Your task to perform on an android device: Add duracell triple a to the cart on ebay.com Image 0: 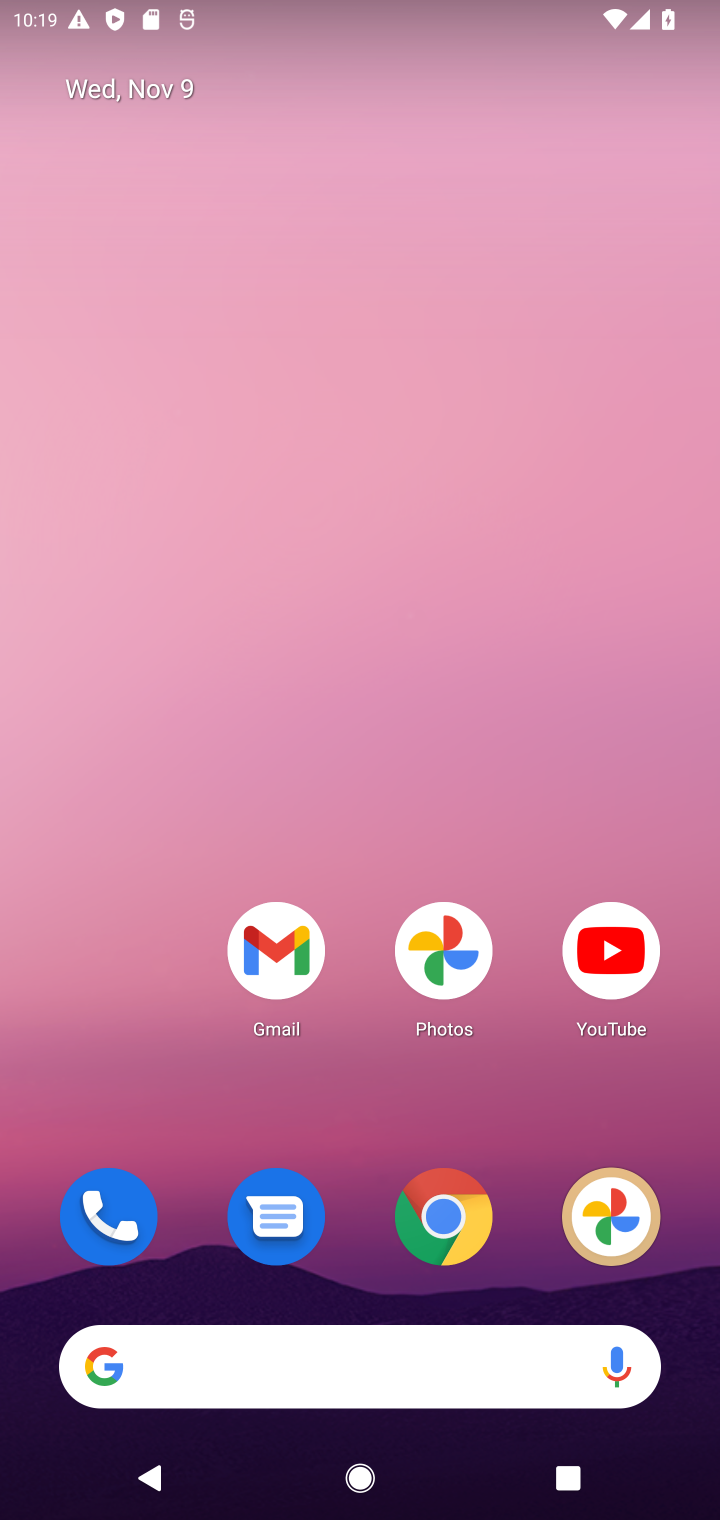
Step 0: drag from (347, 1278) to (184, 84)
Your task to perform on an android device: Add duracell triple a to the cart on ebay.com Image 1: 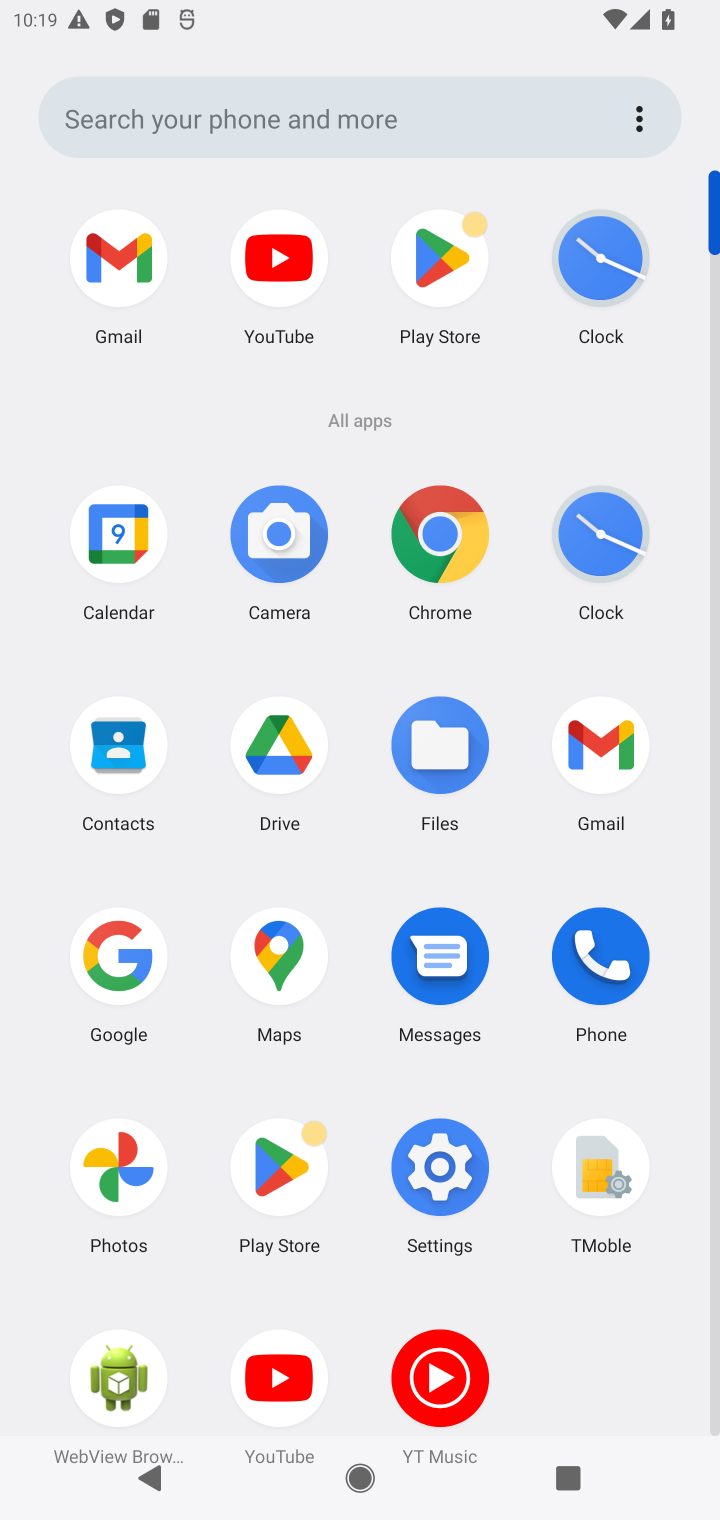
Step 1: click (431, 523)
Your task to perform on an android device: Add duracell triple a to the cart on ebay.com Image 2: 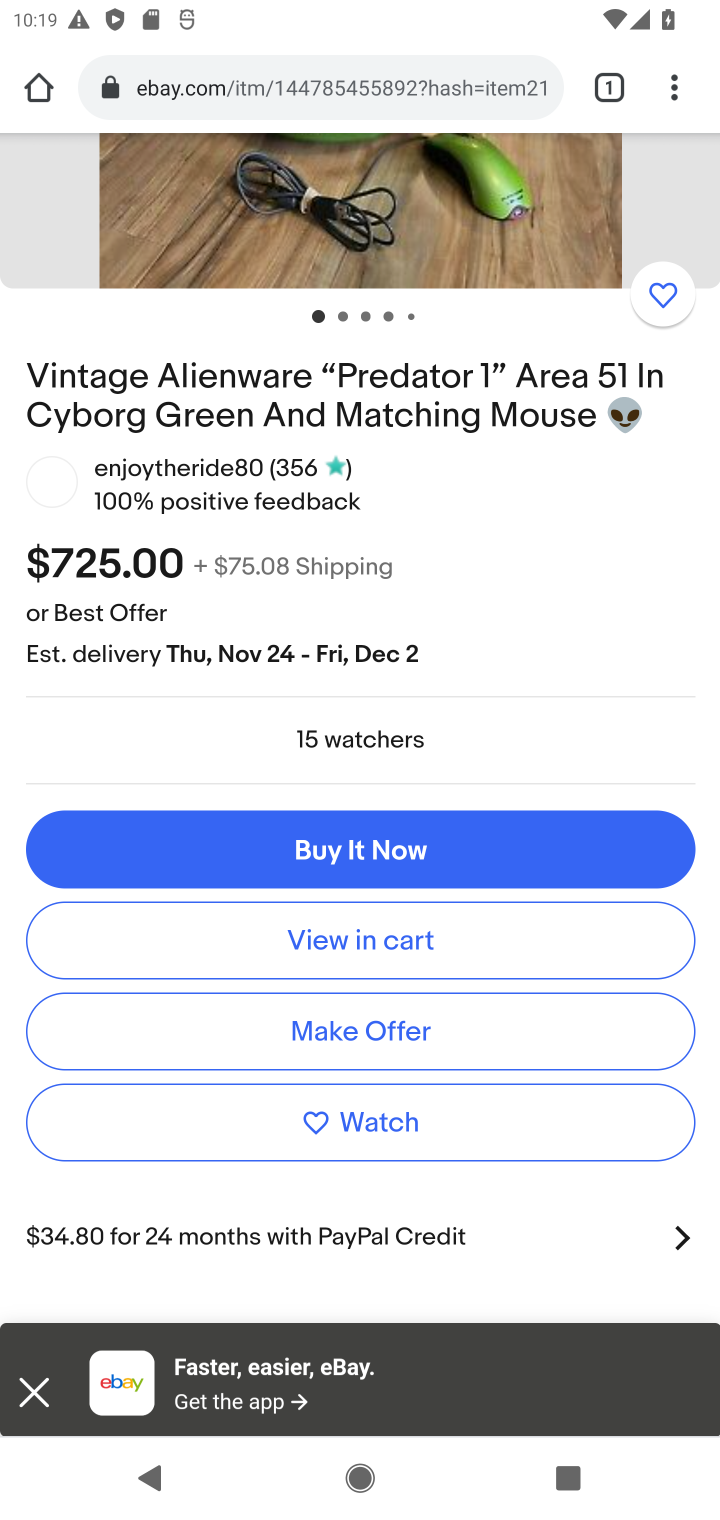
Step 2: click (352, 88)
Your task to perform on an android device: Add duracell triple a to the cart on ebay.com Image 3: 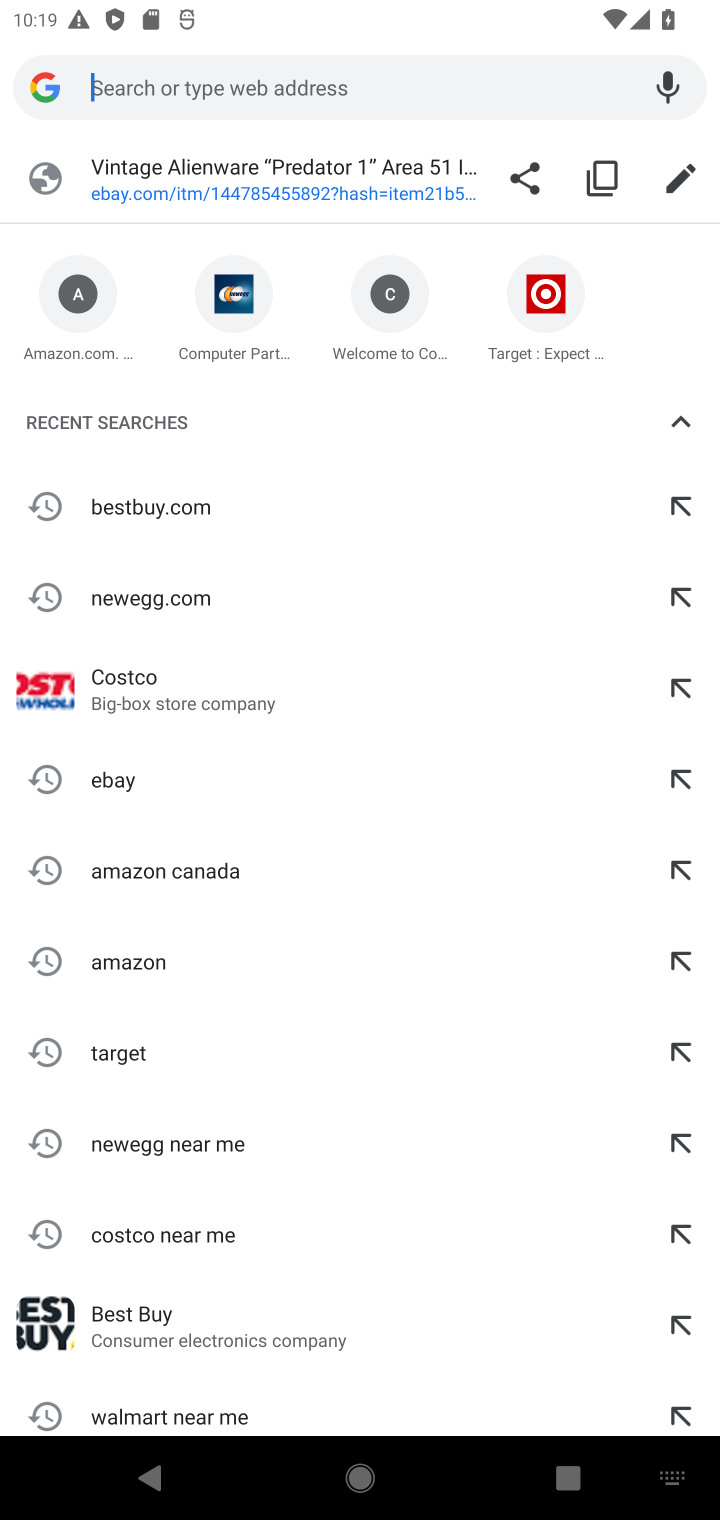
Step 3: type "ebay.com"
Your task to perform on an android device: Add duracell triple a to the cart on ebay.com Image 4: 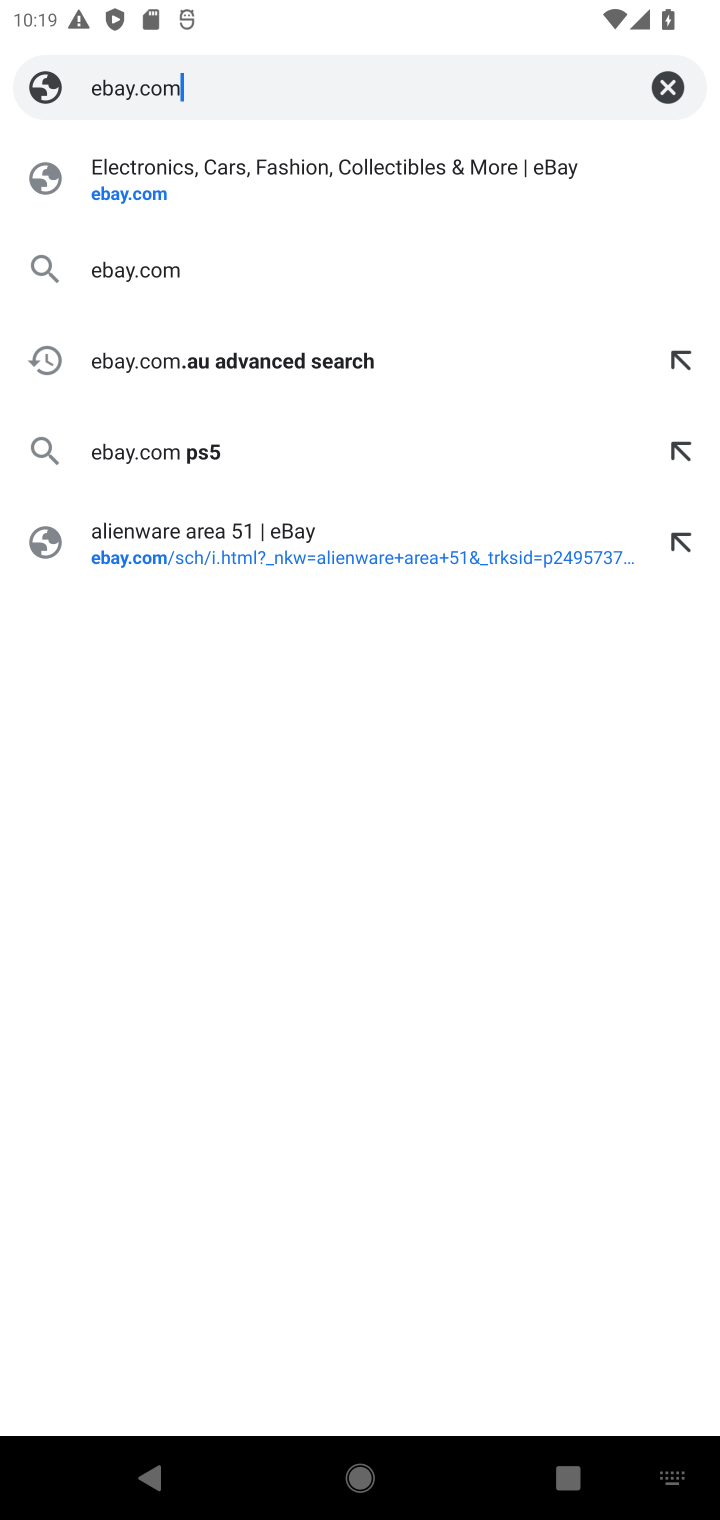
Step 4: press enter
Your task to perform on an android device: Add duracell triple a to the cart on ebay.com Image 5: 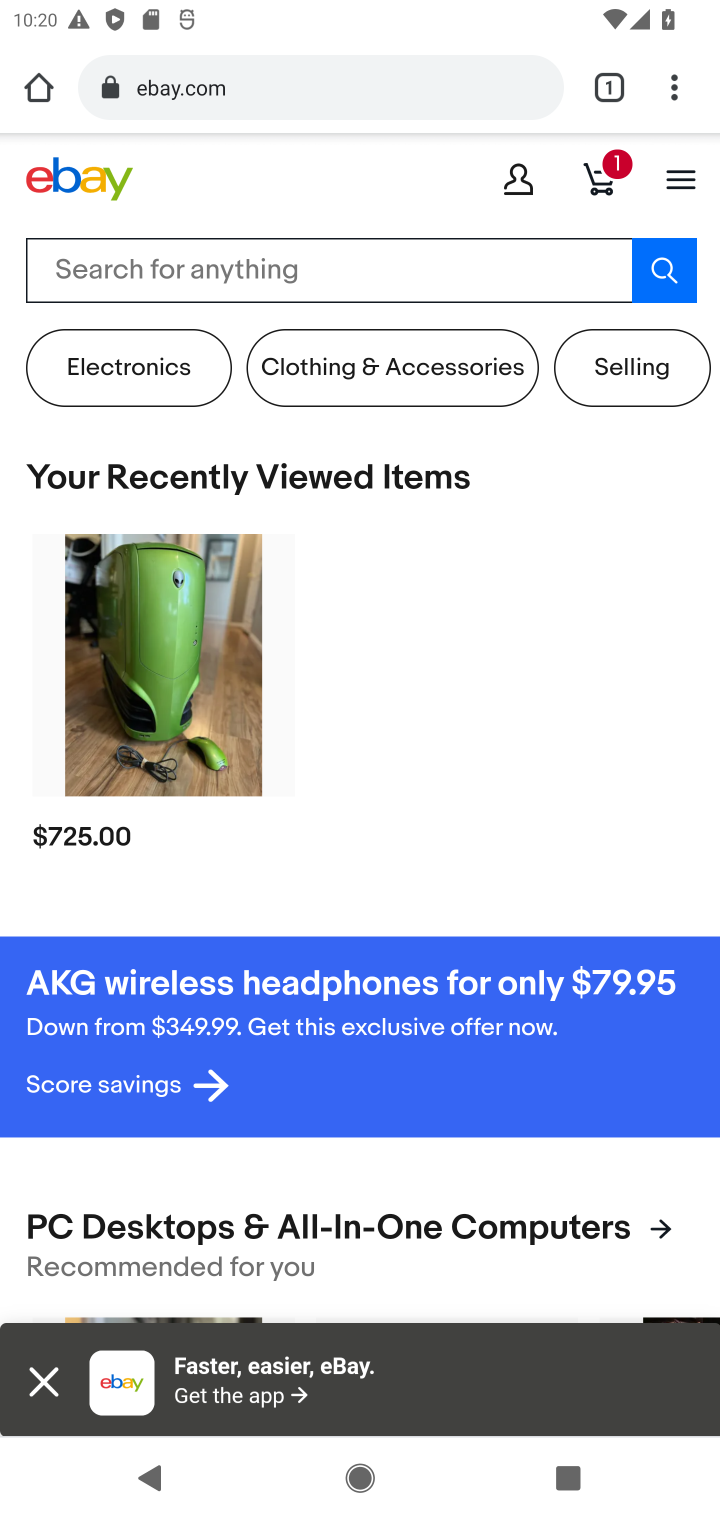
Step 5: click (238, 263)
Your task to perform on an android device: Add duracell triple a to the cart on ebay.com Image 6: 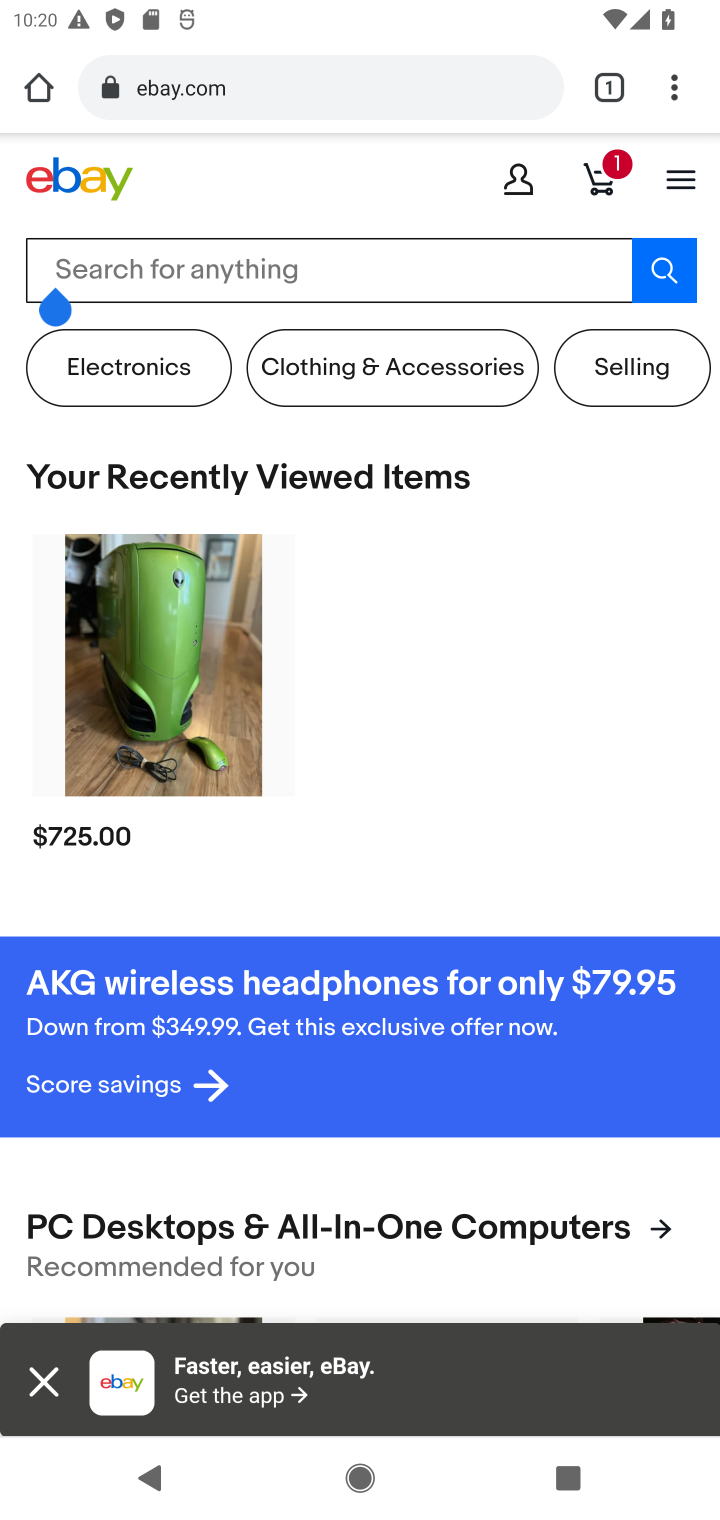
Step 6: type "duracell triple  a"
Your task to perform on an android device: Add duracell triple a to the cart on ebay.com Image 7: 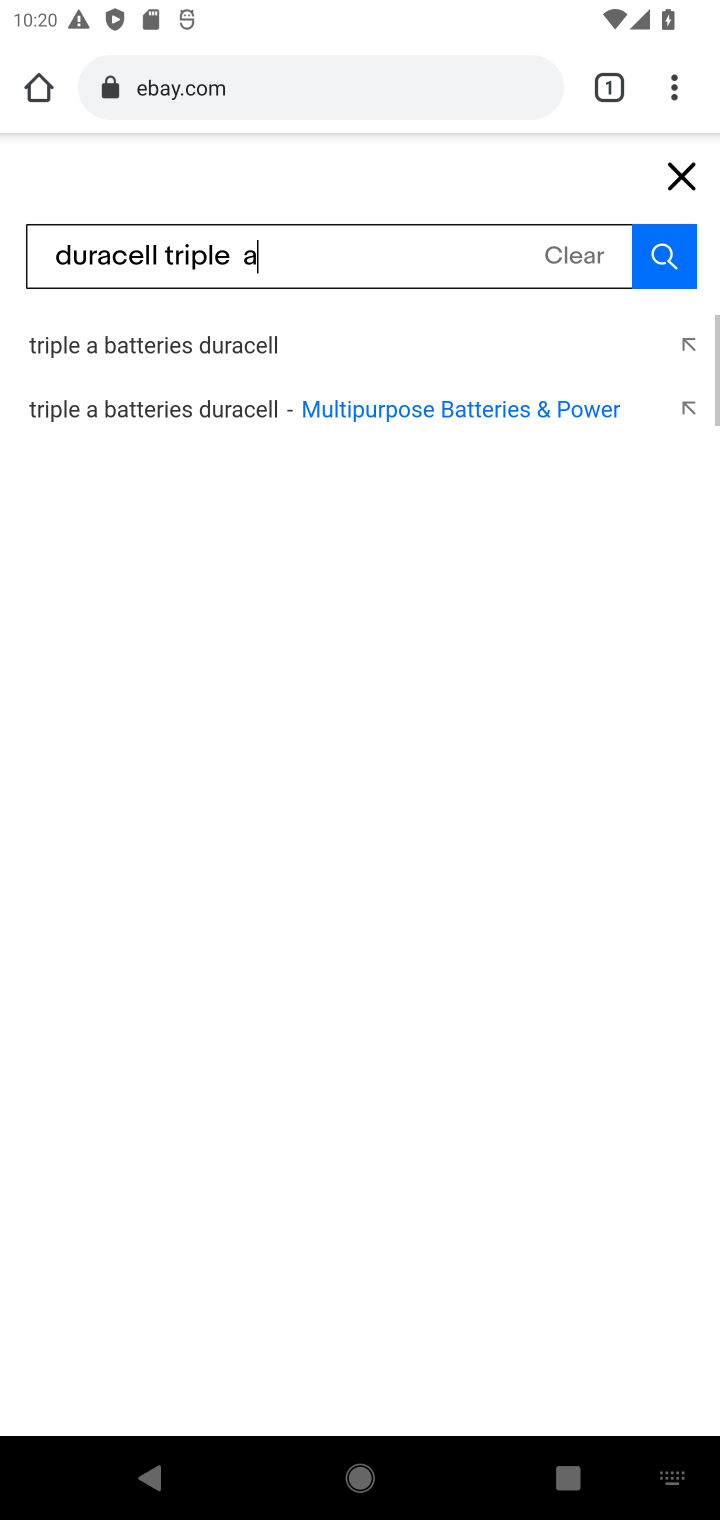
Step 7: press enter
Your task to perform on an android device: Add duracell triple a to the cart on ebay.com Image 8: 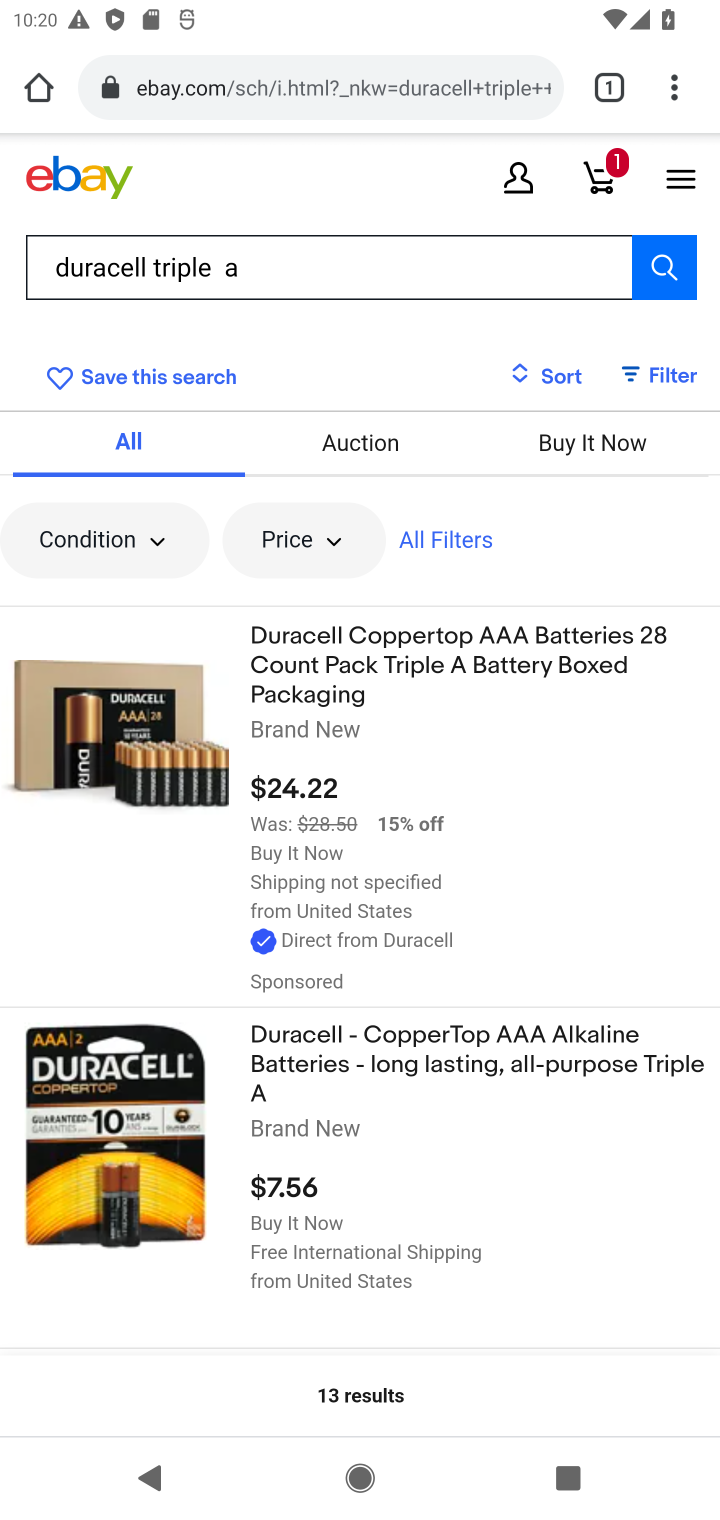
Step 8: click (296, 696)
Your task to perform on an android device: Add duracell triple a to the cart on ebay.com Image 9: 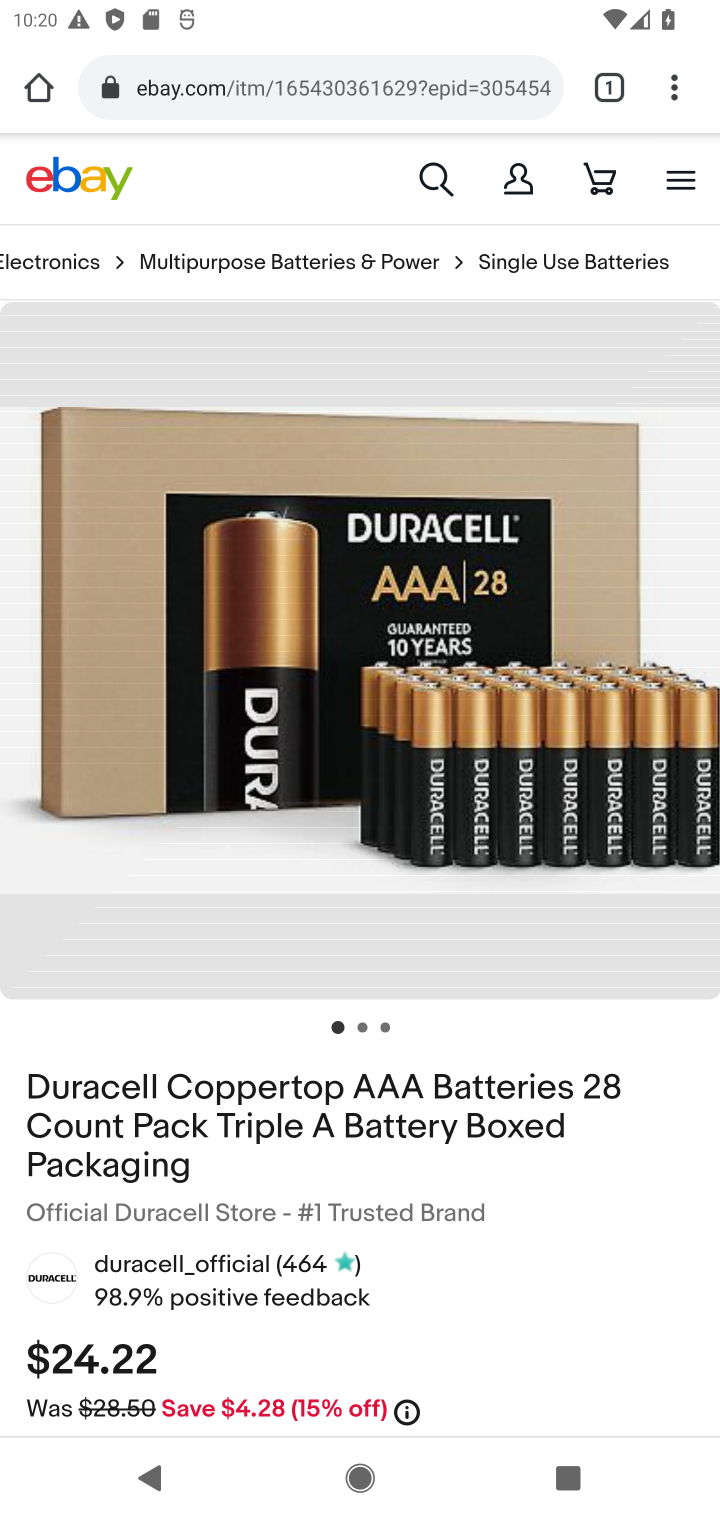
Step 9: drag from (367, 792) to (352, 137)
Your task to perform on an android device: Add duracell triple a to the cart on ebay.com Image 10: 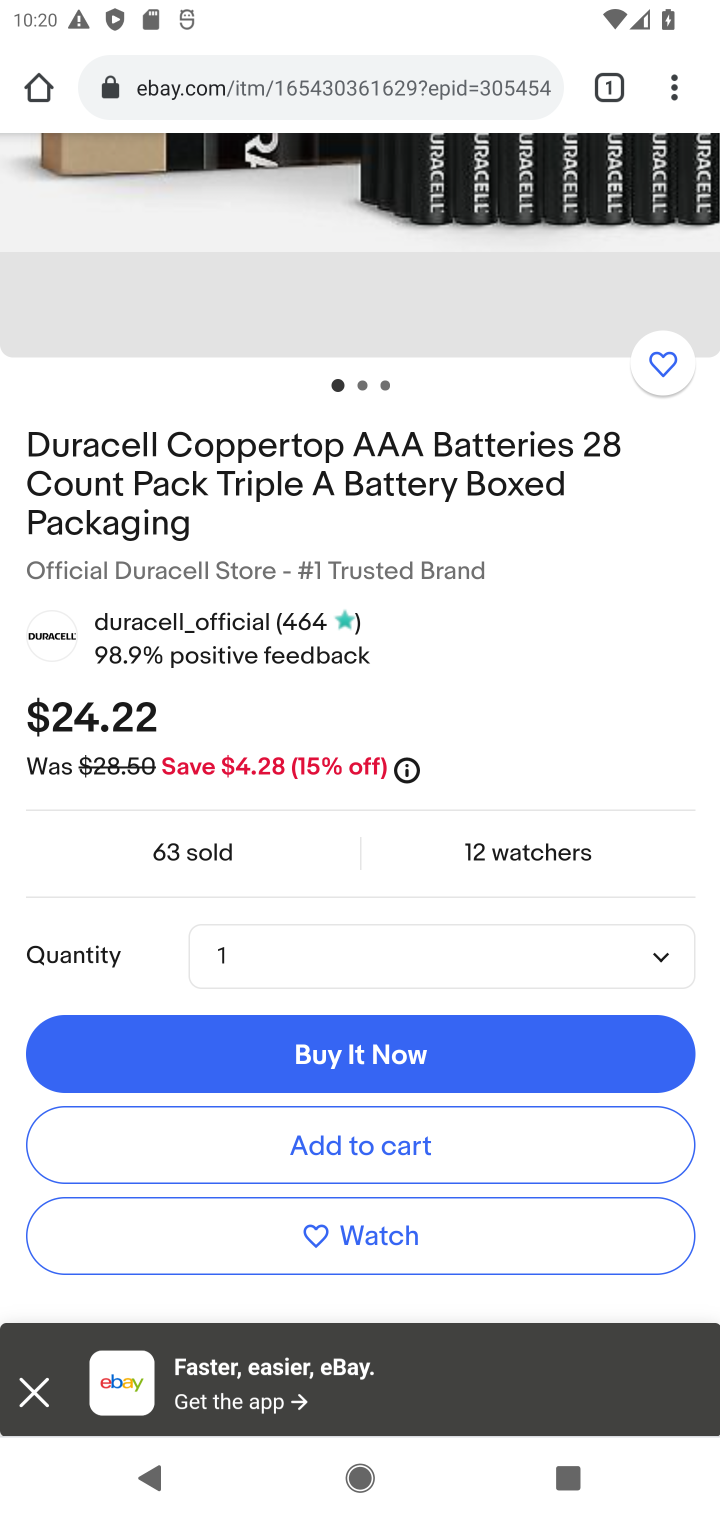
Step 10: click (493, 1147)
Your task to perform on an android device: Add duracell triple a to the cart on ebay.com Image 11: 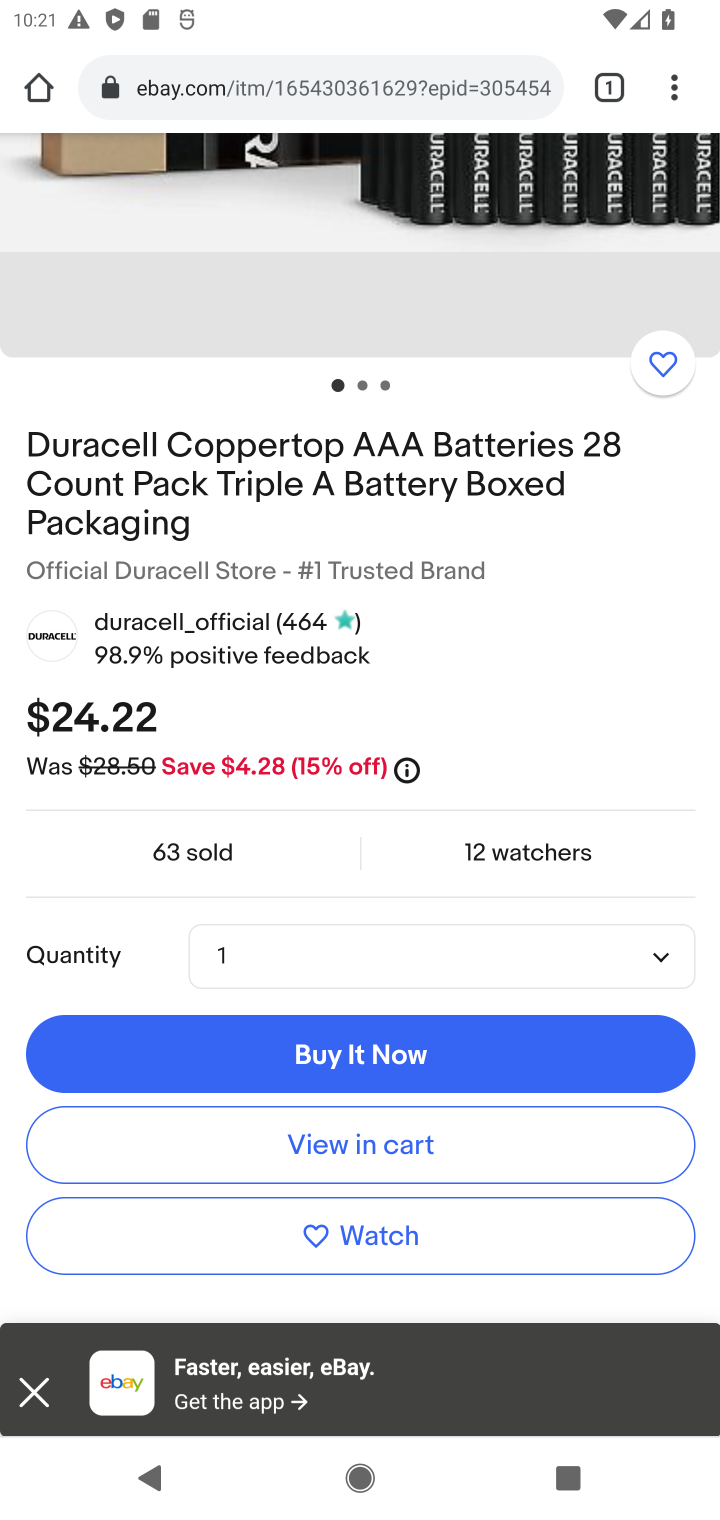
Step 11: task complete